Your task to perform on an android device: Open Google Chrome and click the shortcut for Amazon.com Image 0: 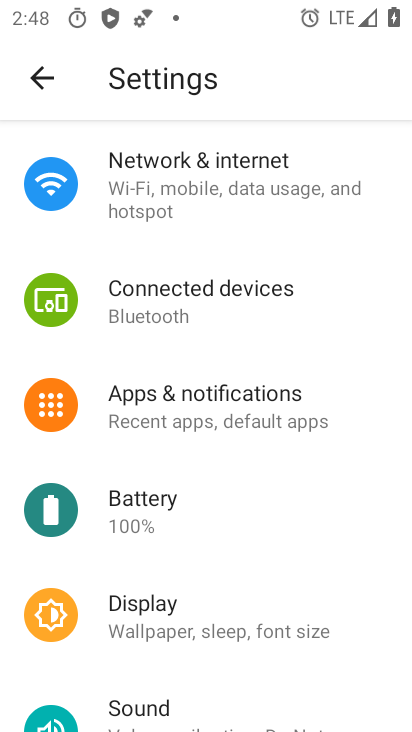
Step 0: press home button
Your task to perform on an android device: Open Google Chrome and click the shortcut for Amazon.com Image 1: 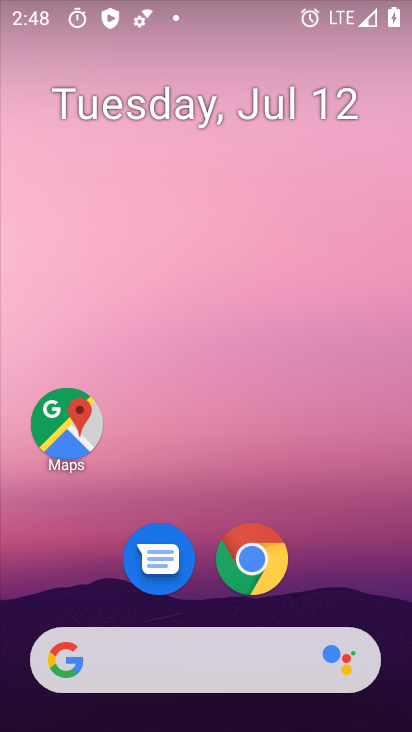
Step 1: drag from (360, 559) to (391, 170)
Your task to perform on an android device: Open Google Chrome and click the shortcut for Amazon.com Image 2: 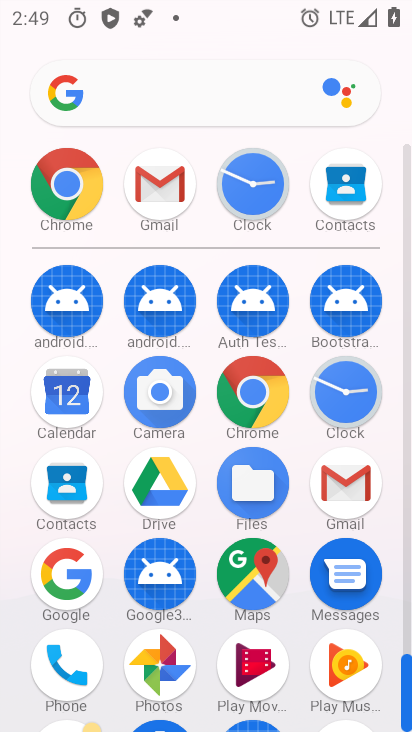
Step 2: click (247, 390)
Your task to perform on an android device: Open Google Chrome and click the shortcut for Amazon.com Image 3: 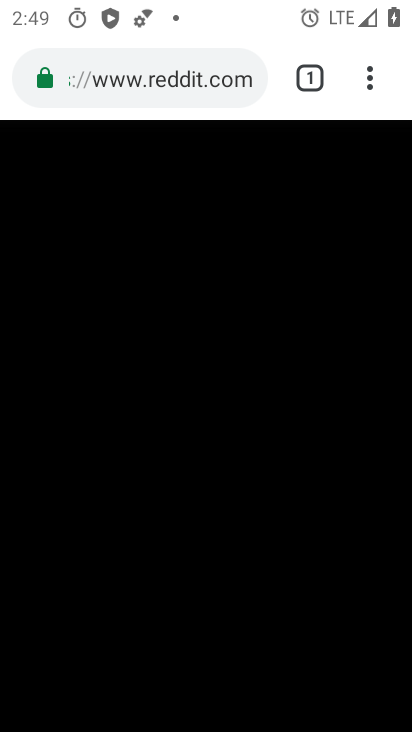
Step 3: press back button
Your task to perform on an android device: Open Google Chrome and click the shortcut for Amazon.com Image 4: 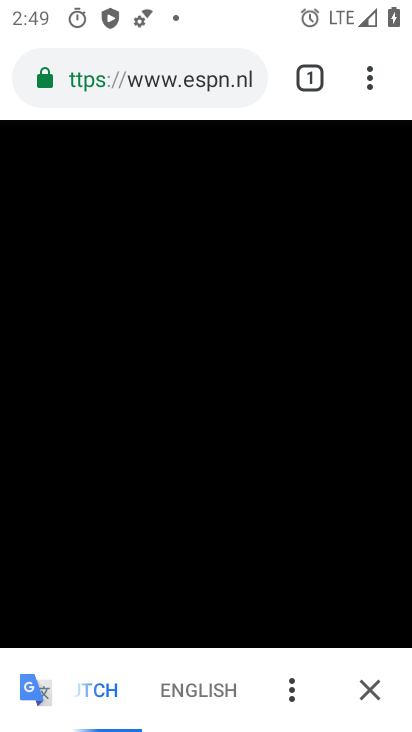
Step 4: press back button
Your task to perform on an android device: Open Google Chrome and click the shortcut for Amazon.com Image 5: 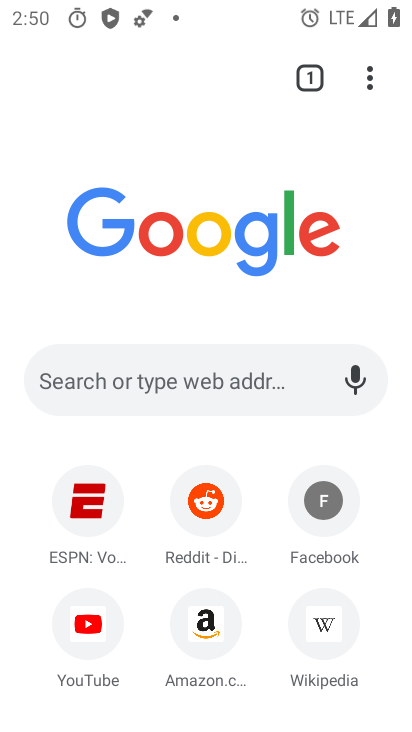
Step 5: click (202, 627)
Your task to perform on an android device: Open Google Chrome and click the shortcut for Amazon.com Image 6: 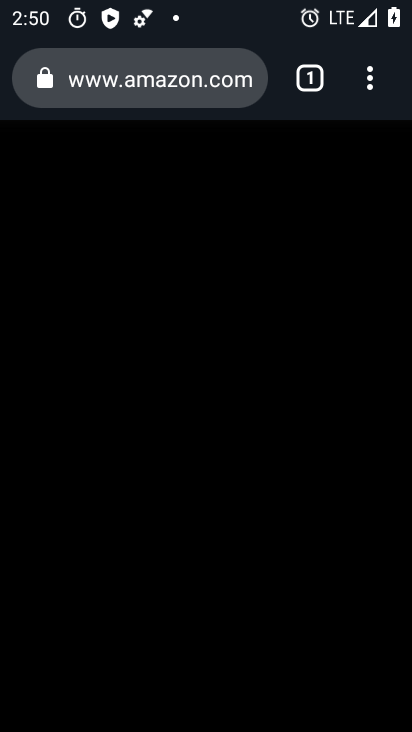
Step 6: task complete